Your task to perform on an android device: open a bookmark in the chrome app Image 0: 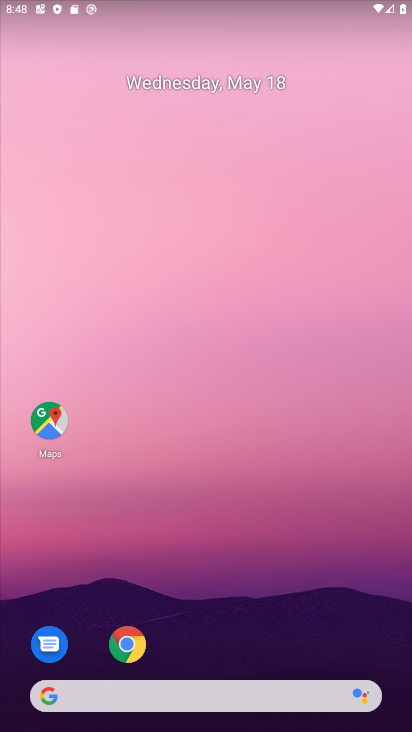
Step 0: click (119, 633)
Your task to perform on an android device: open a bookmark in the chrome app Image 1: 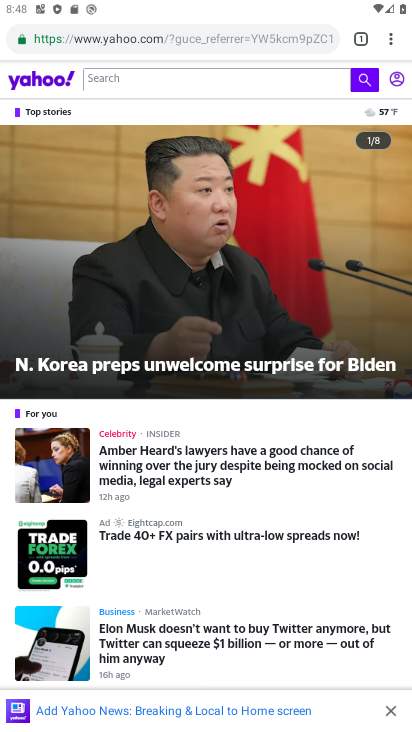
Step 1: click (392, 34)
Your task to perform on an android device: open a bookmark in the chrome app Image 2: 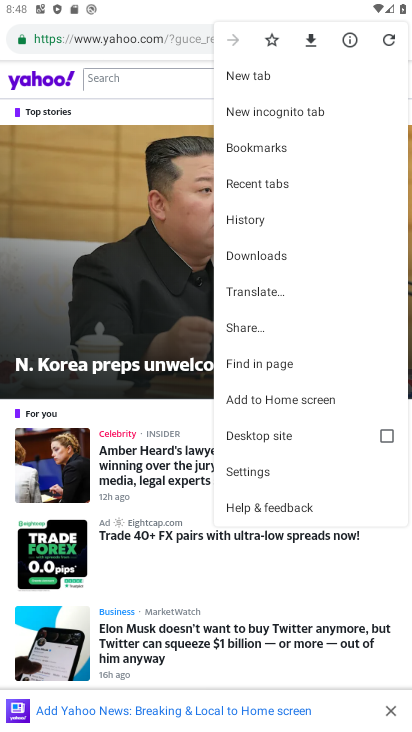
Step 2: click (273, 150)
Your task to perform on an android device: open a bookmark in the chrome app Image 3: 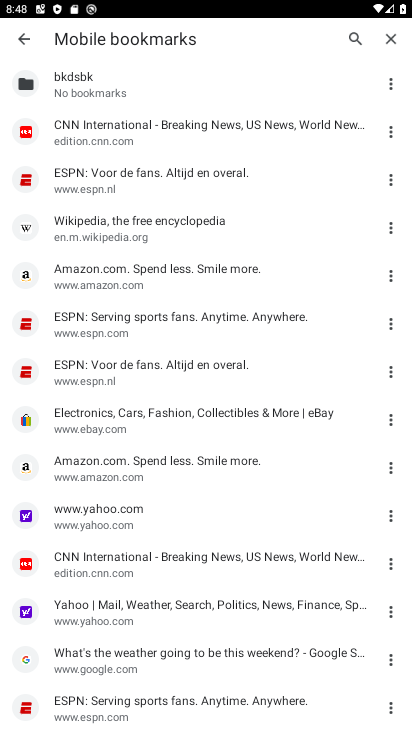
Step 3: click (84, 222)
Your task to perform on an android device: open a bookmark in the chrome app Image 4: 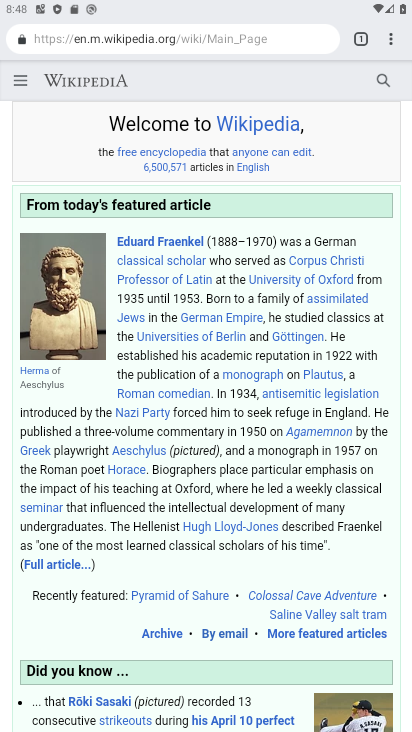
Step 4: task complete